Your task to perform on an android device: Search for Italian restaurants on Maps Image 0: 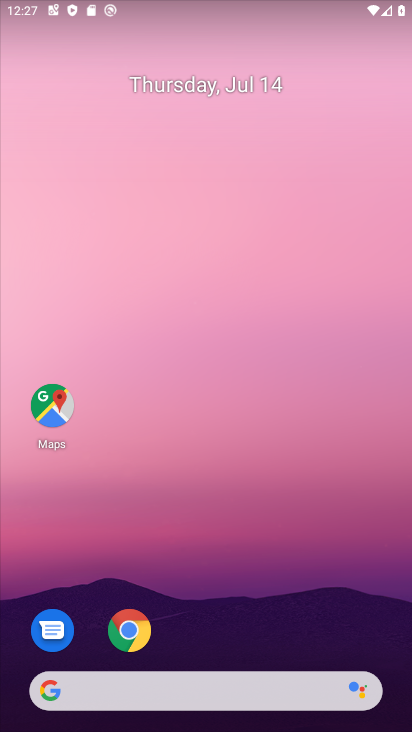
Step 0: drag from (201, 655) to (185, 366)
Your task to perform on an android device: Search for Italian restaurants on Maps Image 1: 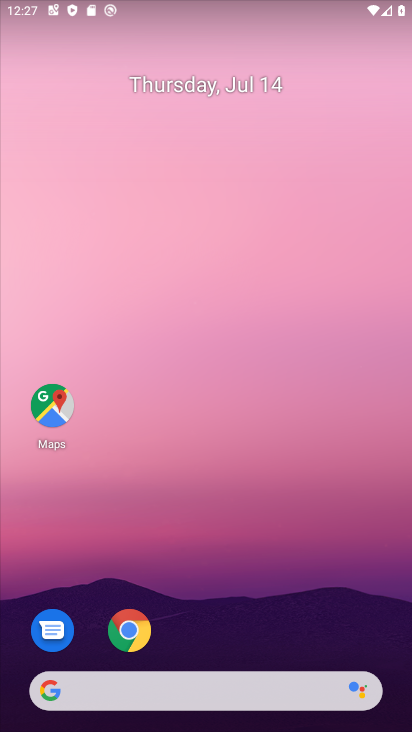
Step 1: click (42, 406)
Your task to perform on an android device: Search for Italian restaurants on Maps Image 2: 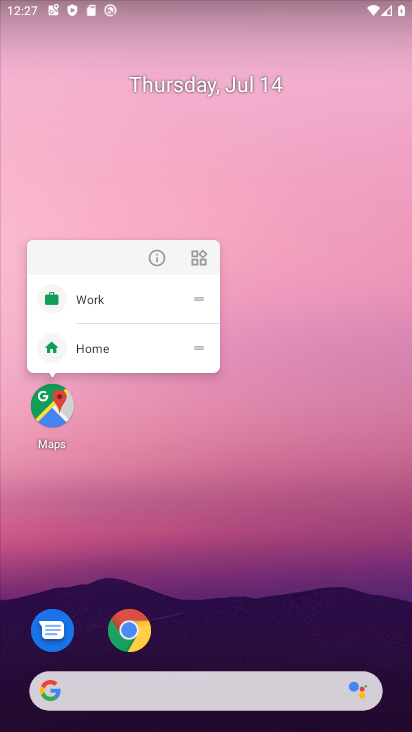
Step 2: click (45, 411)
Your task to perform on an android device: Search for Italian restaurants on Maps Image 3: 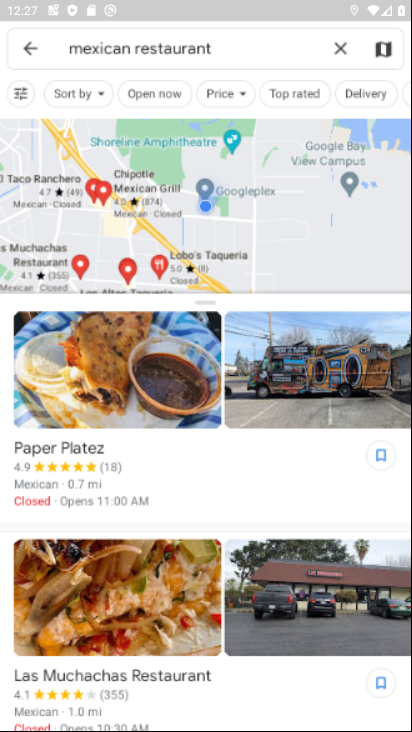
Step 3: click (335, 49)
Your task to perform on an android device: Search for Italian restaurants on Maps Image 4: 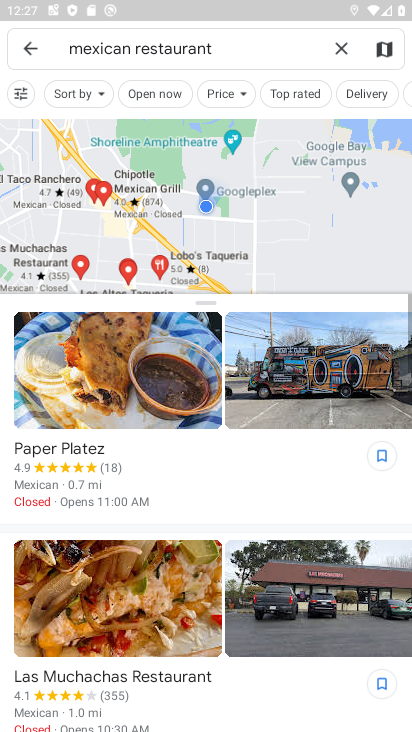
Step 4: click (238, 51)
Your task to perform on an android device: Search for Italian restaurants on Maps Image 5: 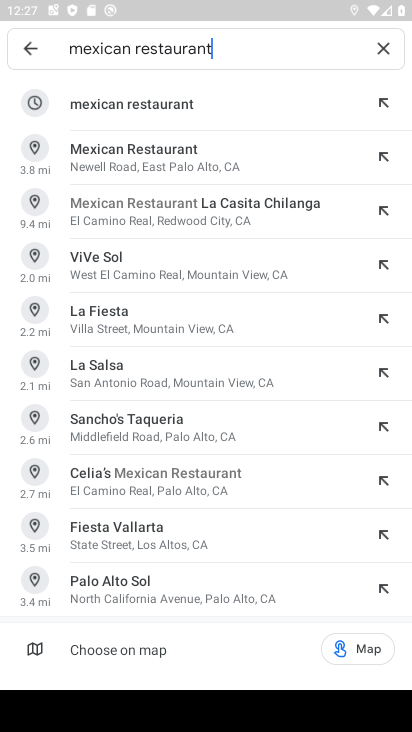
Step 5: click (382, 55)
Your task to perform on an android device: Search for Italian restaurants on Maps Image 6: 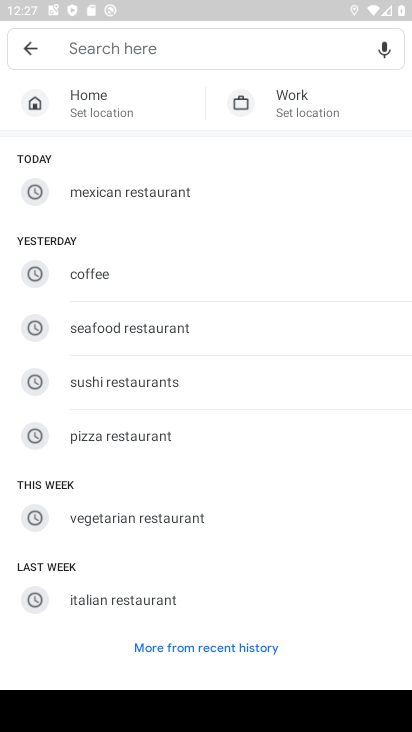
Step 6: click (103, 601)
Your task to perform on an android device: Search for Italian restaurants on Maps Image 7: 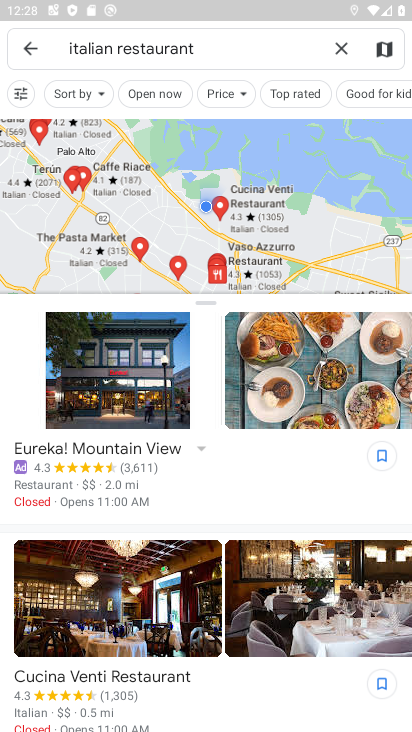
Step 7: task complete